Your task to perform on an android device: Search for vegetarian restaurants on Maps Image 0: 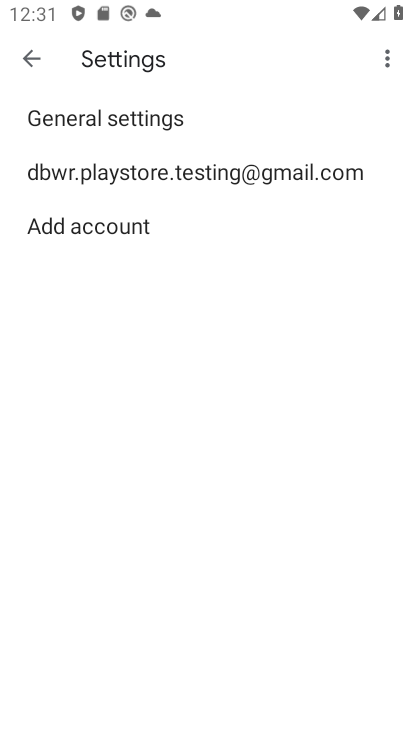
Step 0: press home button
Your task to perform on an android device: Search for vegetarian restaurants on Maps Image 1: 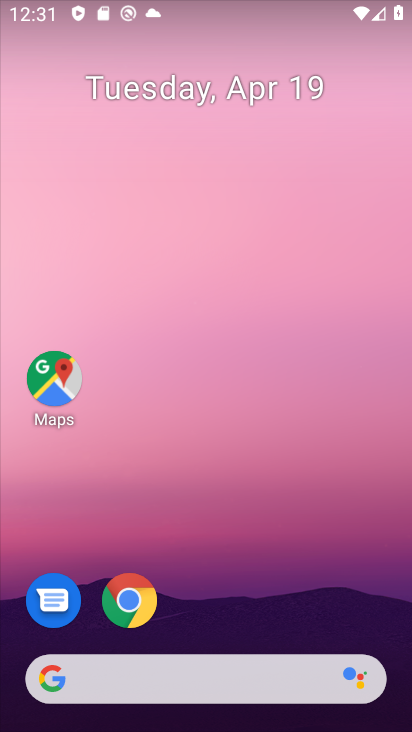
Step 1: click (62, 397)
Your task to perform on an android device: Search for vegetarian restaurants on Maps Image 2: 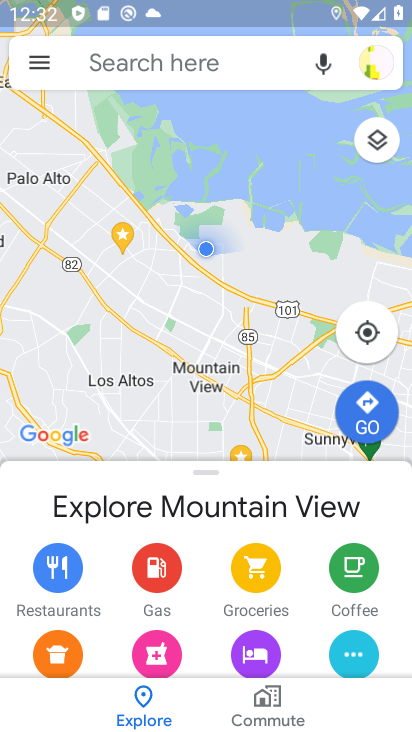
Step 2: click (173, 62)
Your task to perform on an android device: Search for vegetarian restaurants on Maps Image 3: 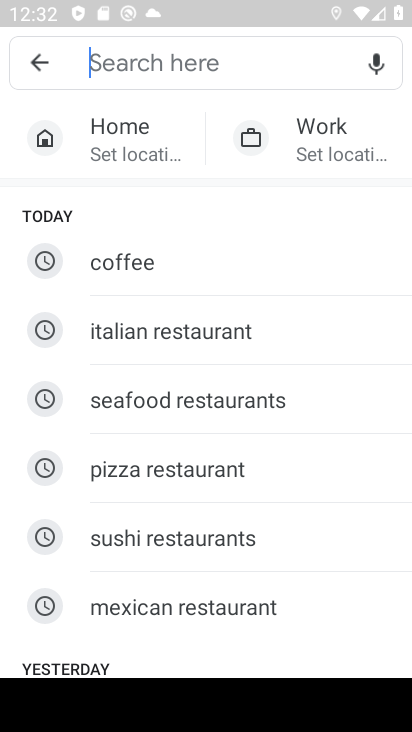
Step 3: drag from (175, 558) to (176, 158)
Your task to perform on an android device: Search for vegetarian restaurants on Maps Image 4: 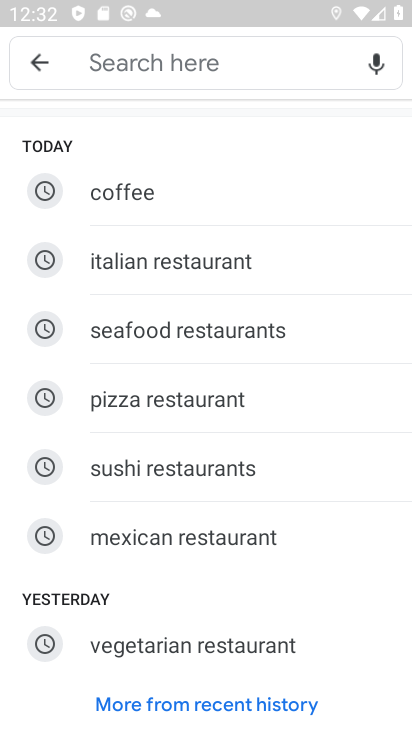
Step 4: click (139, 628)
Your task to perform on an android device: Search for vegetarian restaurants on Maps Image 5: 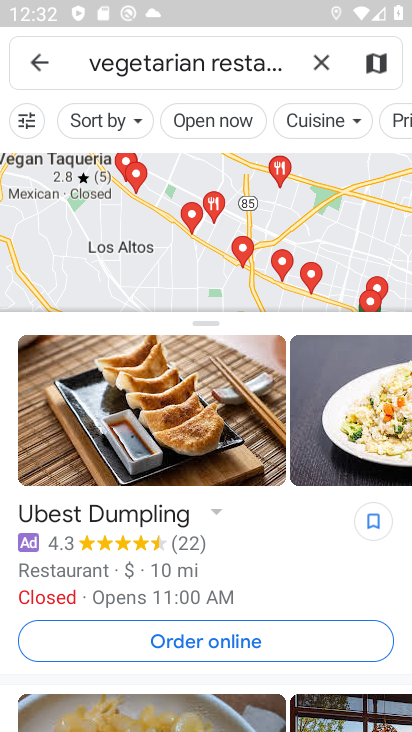
Step 5: task complete